Your task to perform on an android device: visit the assistant section in the google photos Image 0: 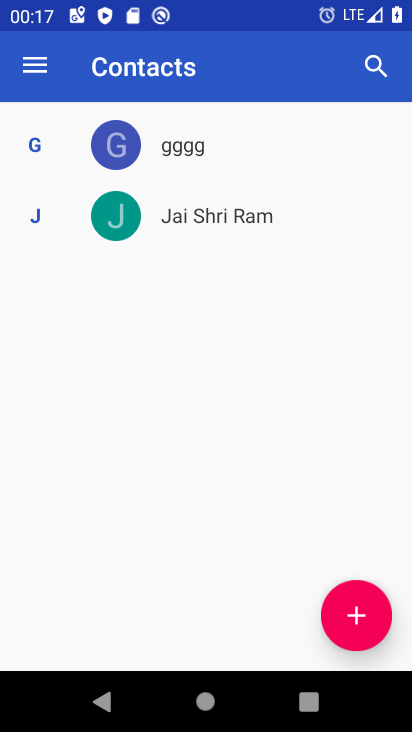
Step 0: press home button
Your task to perform on an android device: visit the assistant section in the google photos Image 1: 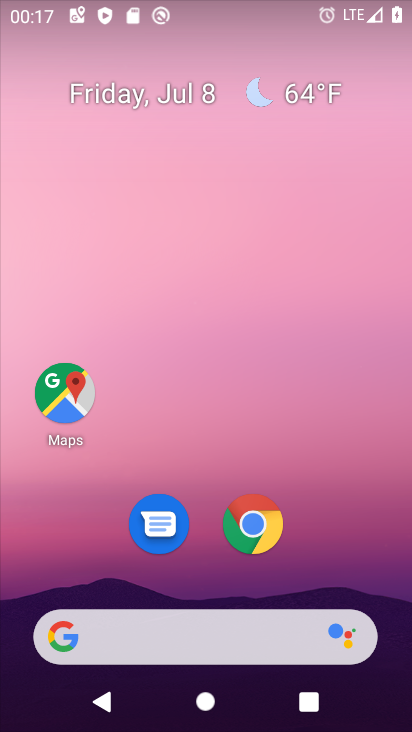
Step 1: drag from (195, 489) to (211, 16)
Your task to perform on an android device: visit the assistant section in the google photos Image 2: 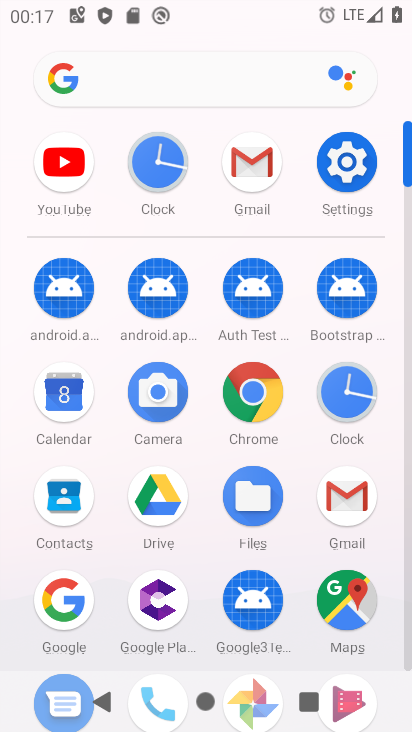
Step 2: drag from (206, 429) to (192, 217)
Your task to perform on an android device: visit the assistant section in the google photos Image 3: 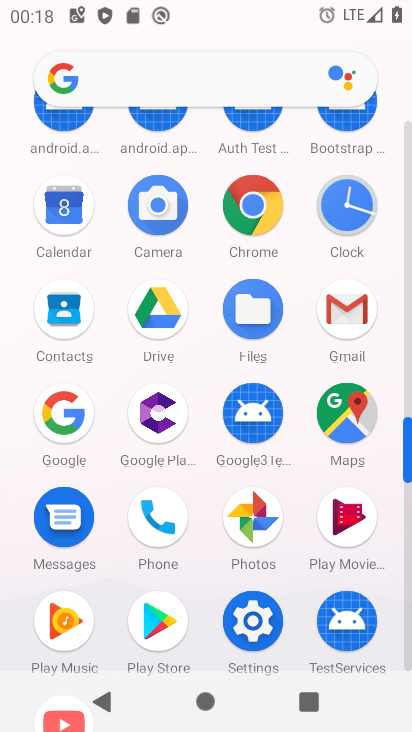
Step 3: click (253, 513)
Your task to perform on an android device: visit the assistant section in the google photos Image 4: 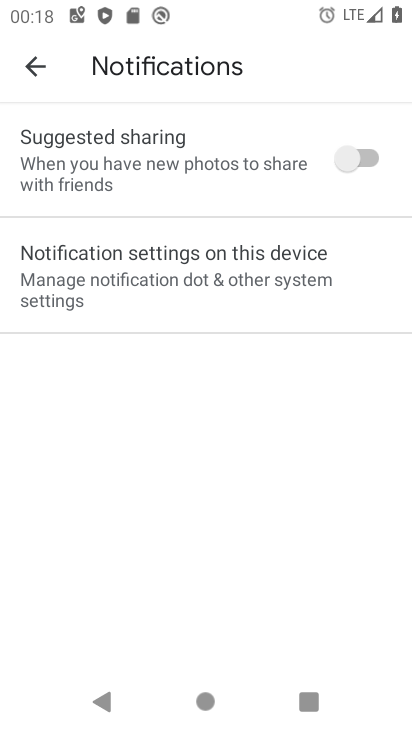
Step 4: click (37, 68)
Your task to perform on an android device: visit the assistant section in the google photos Image 5: 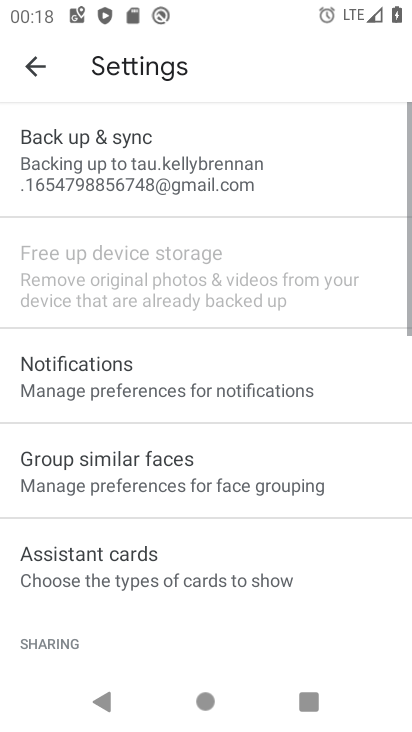
Step 5: click (37, 68)
Your task to perform on an android device: visit the assistant section in the google photos Image 6: 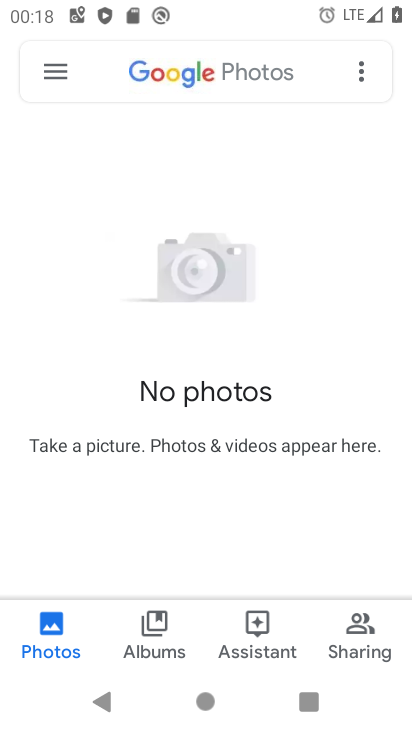
Step 6: click (272, 635)
Your task to perform on an android device: visit the assistant section in the google photos Image 7: 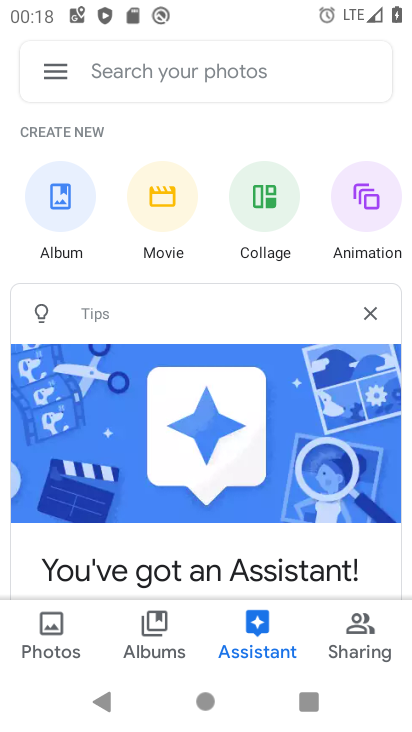
Step 7: task complete